Your task to perform on an android device: clear all cookies in the chrome app Image 0: 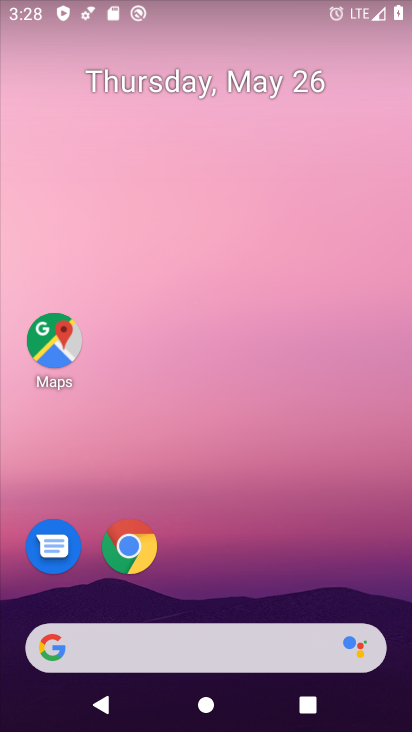
Step 0: click (125, 547)
Your task to perform on an android device: clear all cookies in the chrome app Image 1: 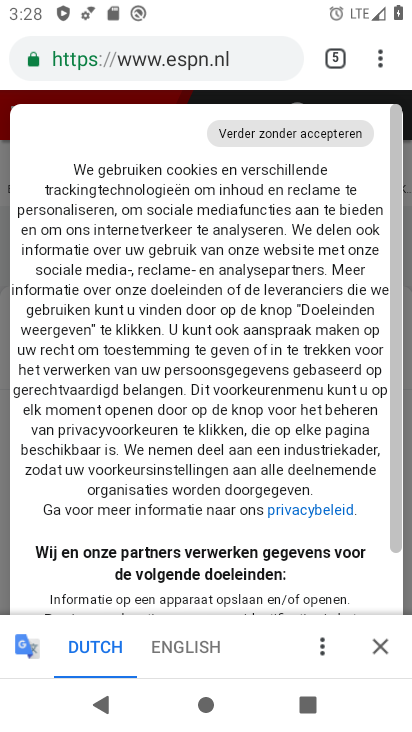
Step 1: drag from (378, 57) to (184, 325)
Your task to perform on an android device: clear all cookies in the chrome app Image 2: 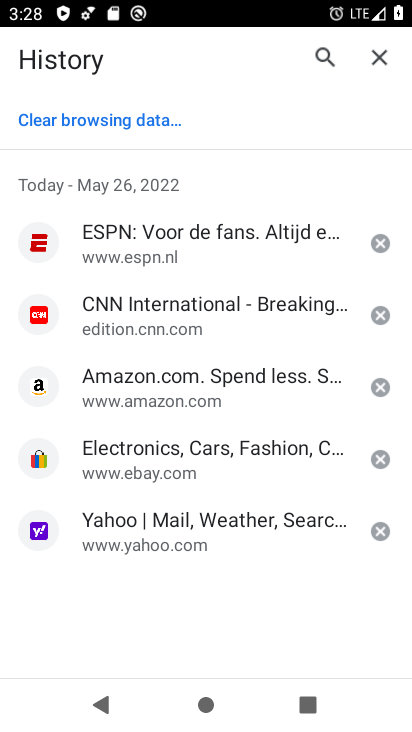
Step 2: click (108, 116)
Your task to perform on an android device: clear all cookies in the chrome app Image 3: 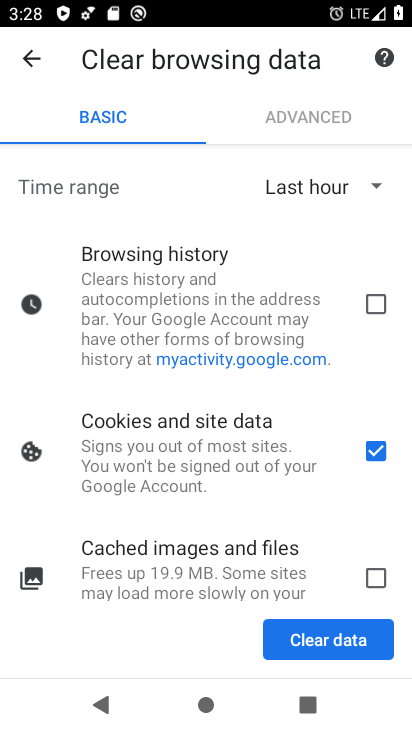
Step 3: click (311, 643)
Your task to perform on an android device: clear all cookies in the chrome app Image 4: 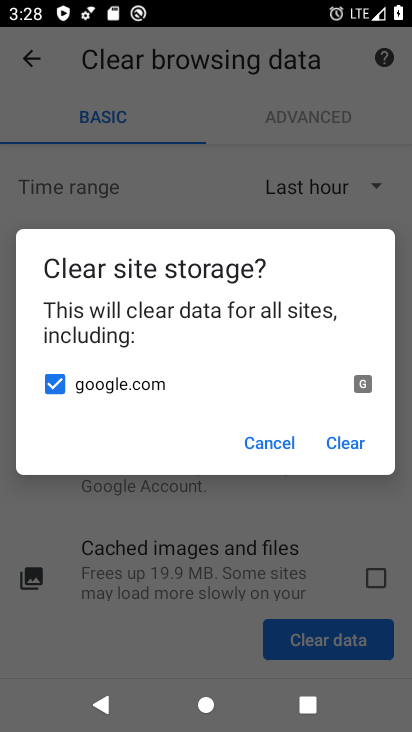
Step 4: click (357, 451)
Your task to perform on an android device: clear all cookies in the chrome app Image 5: 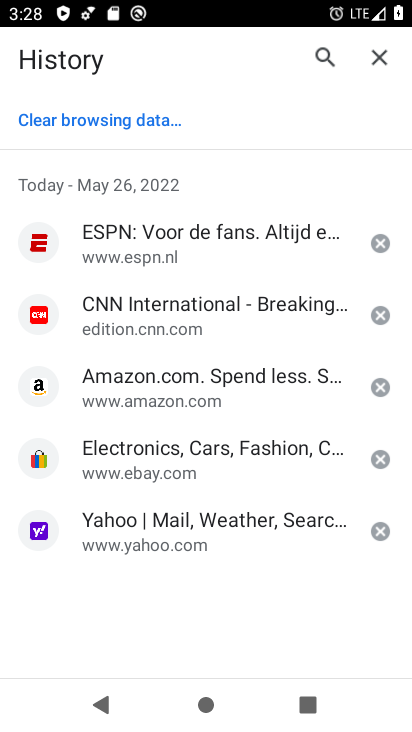
Step 5: task complete